Your task to perform on an android device: turn on javascript in the chrome app Image 0: 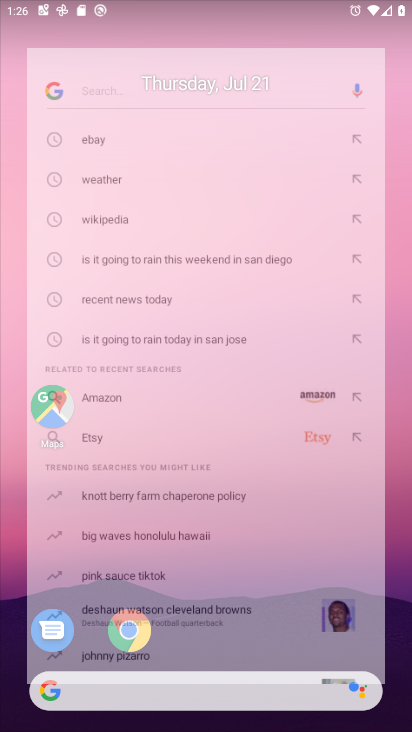
Step 0: drag from (211, 612) to (324, 221)
Your task to perform on an android device: turn on javascript in the chrome app Image 1: 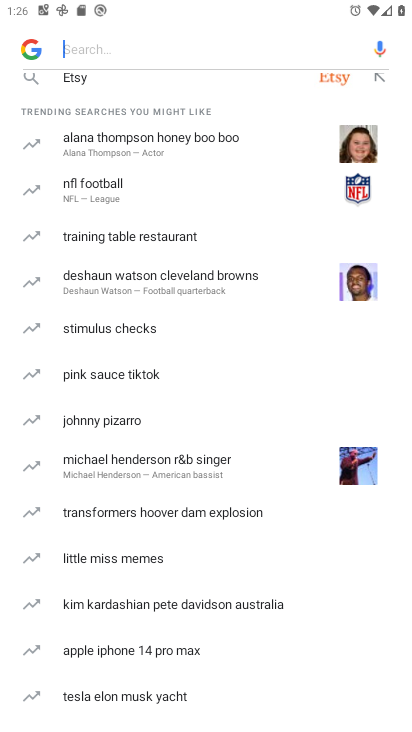
Step 1: press home button
Your task to perform on an android device: turn on javascript in the chrome app Image 2: 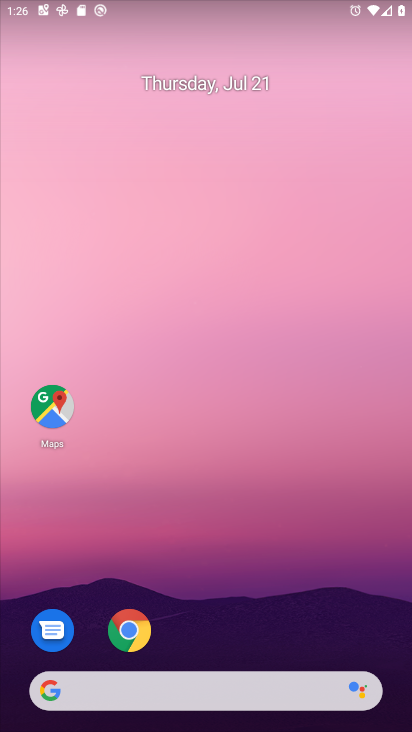
Step 2: drag from (186, 621) to (288, 170)
Your task to perform on an android device: turn on javascript in the chrome app Image 3: 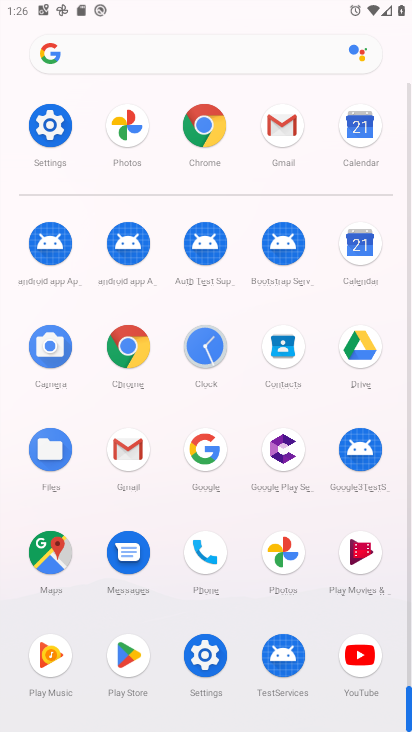
Step 3: click (129, 340)
Your task to perform on an android device: turn on javascript in the chrome app Image 4: 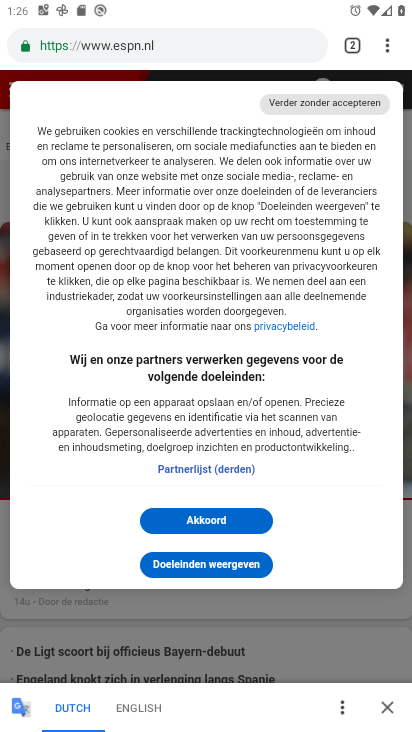
Step 4: drag from (385, 43) to (263, 543)
Your task to perform on an android device: turn on javascript in the chrome app Image 5: 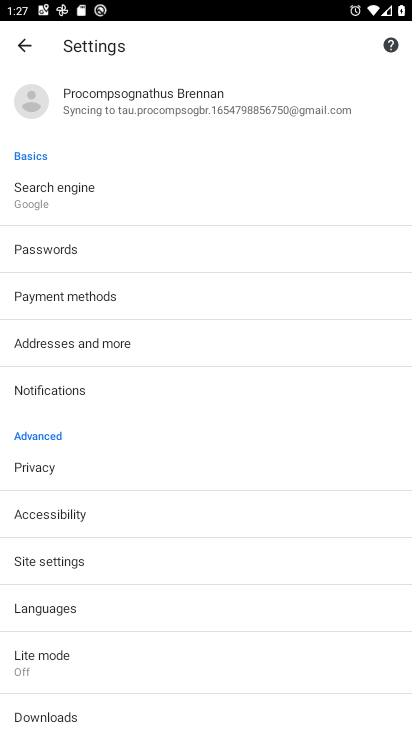
Step 5: click (78, 559)
Your task to perform on an android device: turn on javascript in the chrome app Image 6: 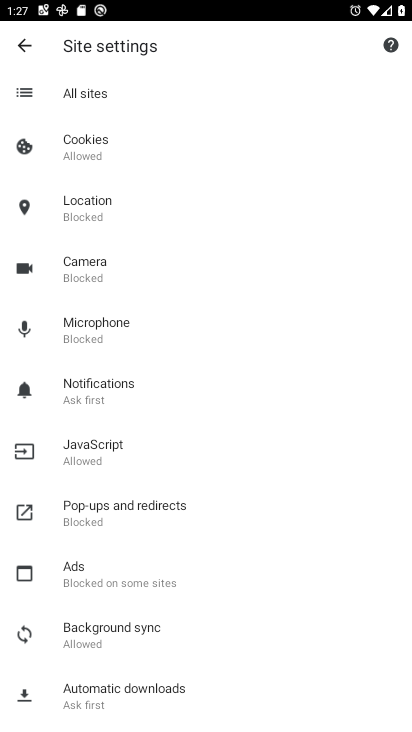
Step 6: click (122, 439)
Your task to perform on an android device: turn on javascript in the chrome app Image 7: 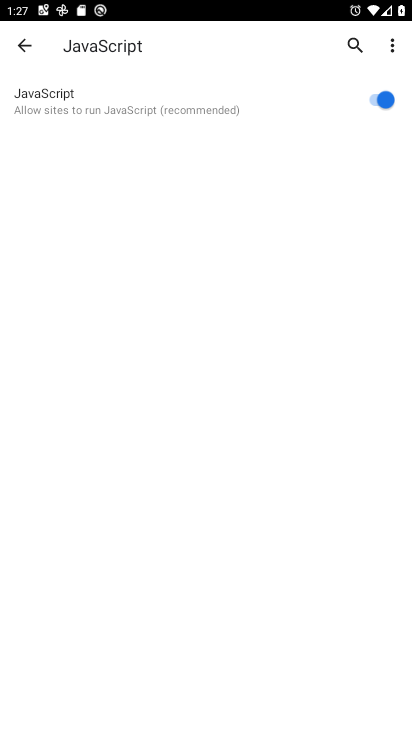
Step 7: task complete